Your task to perform on an android device: Turn on the flashlight Image 0: 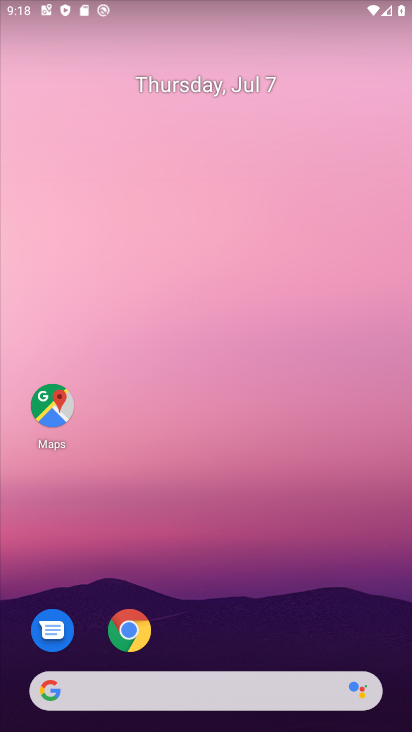
Step 0: drag from (165, 3) to (213, 527)
Your task to perform on an android device: Turn on the flashlight Image 1: 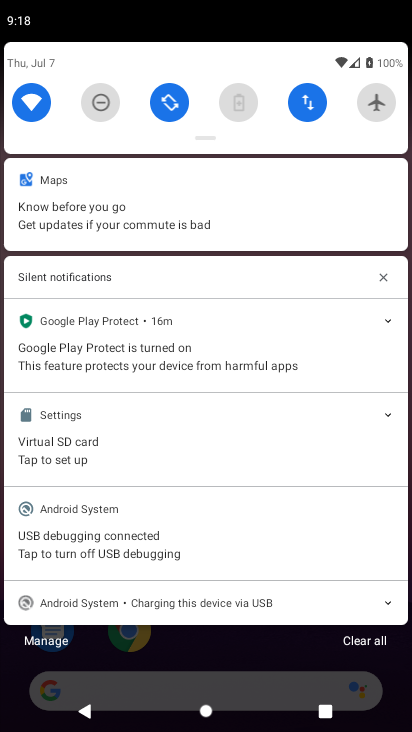
Step 1: drag from (234, 95) to (237, 572)
Your task to perform on an android device: Turn on the flashlight Image 2: 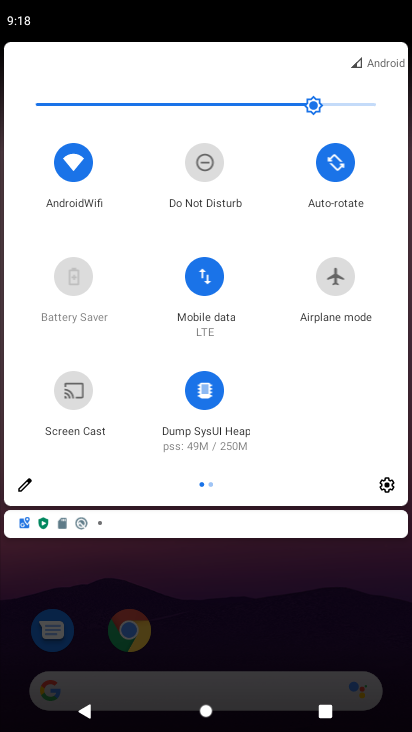
Step 2: drag from (308, 333) to (2, 512)
Your task to perform on an android device: Turn on the flashlight Image 3: 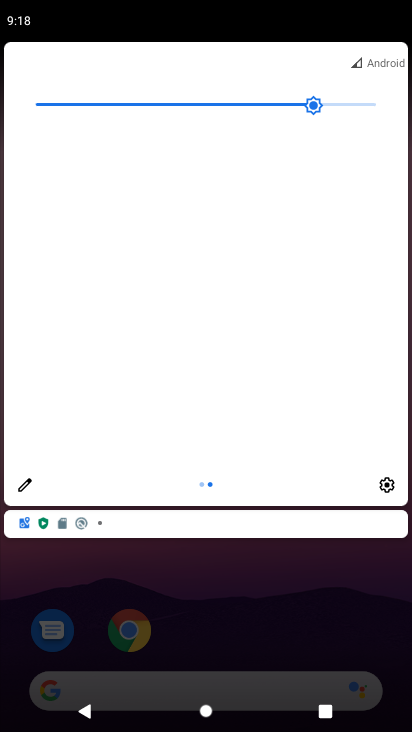
Step 3: click (23, 484)
Your task to perform on an android device: Turn on the flashlight Image 4: 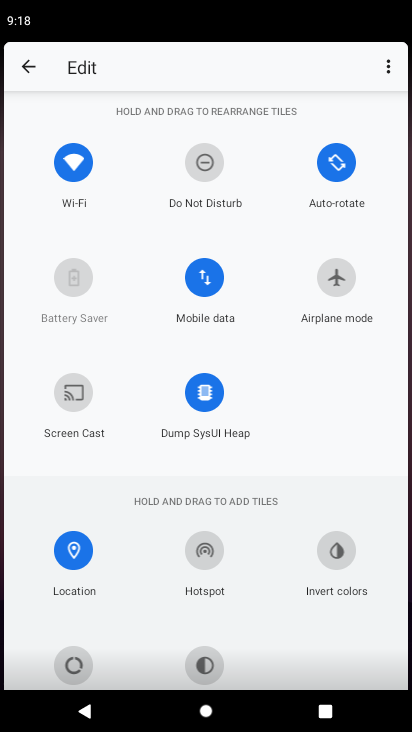
Step 4: task complete